Your task to perform on an android device: Open battery settings Image 0: 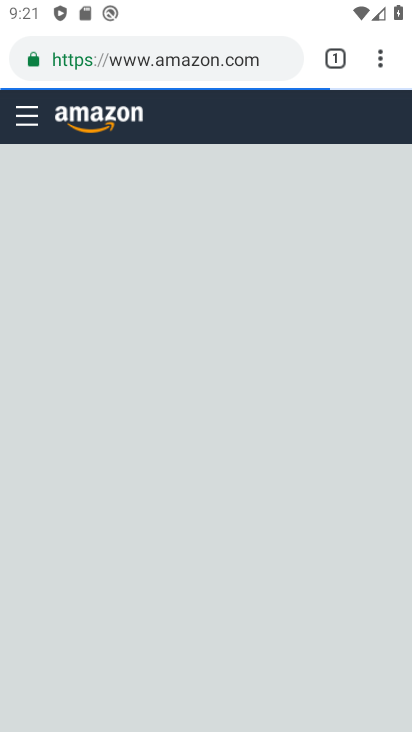
Step 0: press home button
Your task to perform on an android device: Open battery settings Image 1: 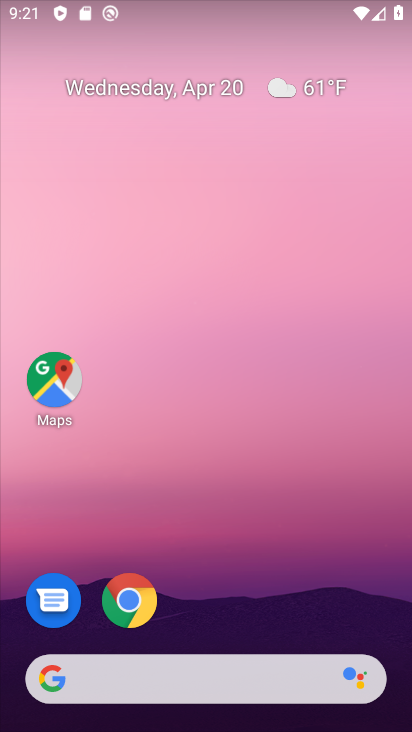
Step 1: drag from (401, 434) to (411, 52)
Your task to perform on an android device: Open battery settings Image 2: 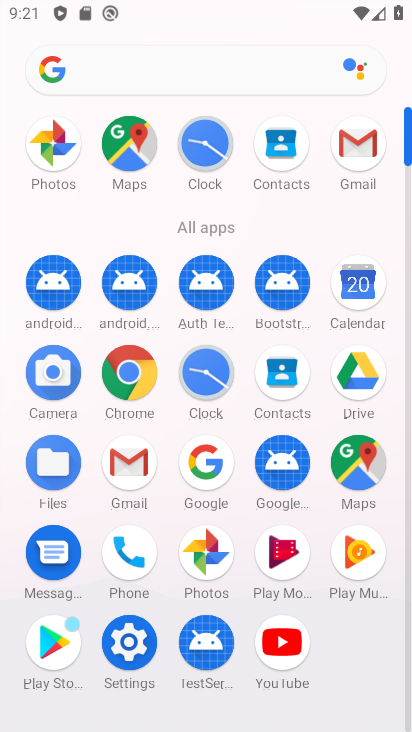
Step 2: click (130, 637)
Your task to perform on an android device: Open battery settings Image 3: 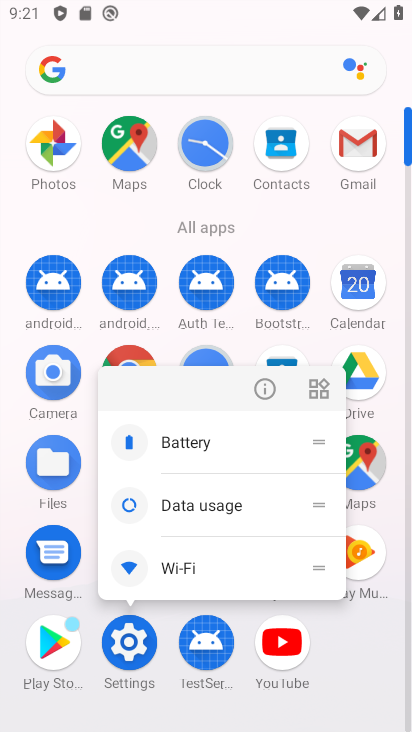
Step 3: click (128, 642)
Your task to perform on an android device: Open battery settings Image 4: 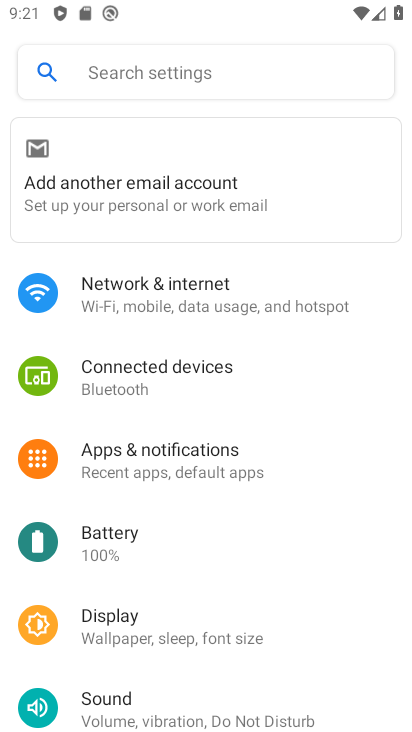
Step 4: click (134, 543)
Your task to perform on an android device: Open battery settings Image 5: 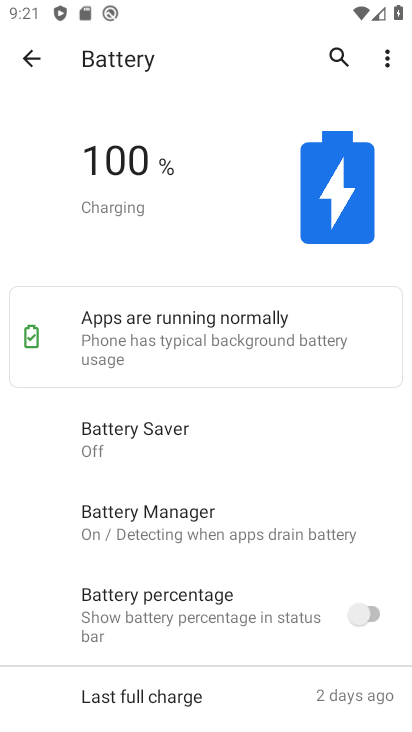
Step 5: task complete